Your task to perform on an android device: Open Google Image 0: 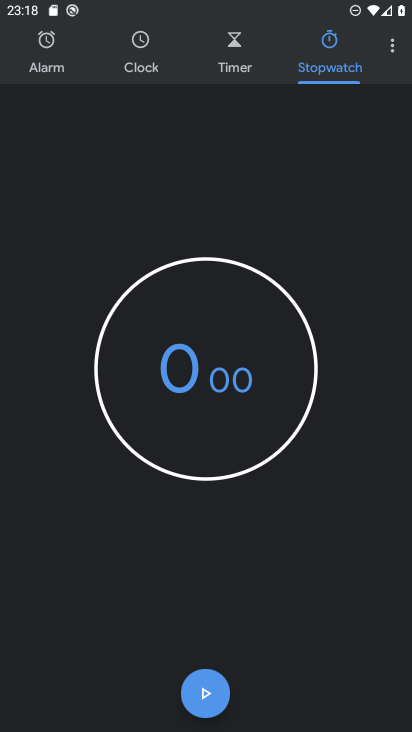
Step 0: press home button
Your task to perform on an android device: Open Google Image 1: 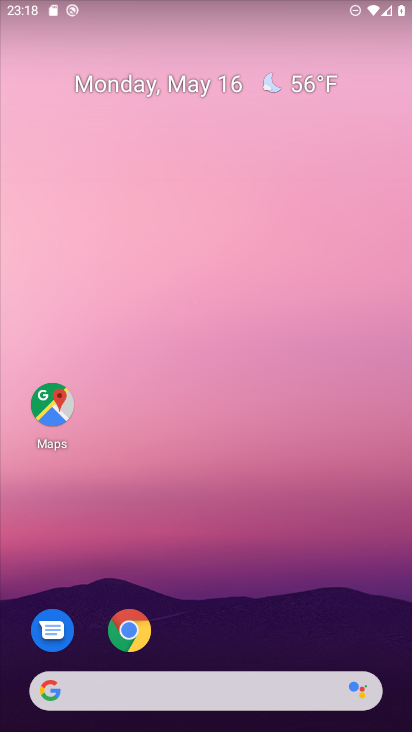
Step 1: click (149, 694)
Your task to perform on an android device: Open Google Image 2: 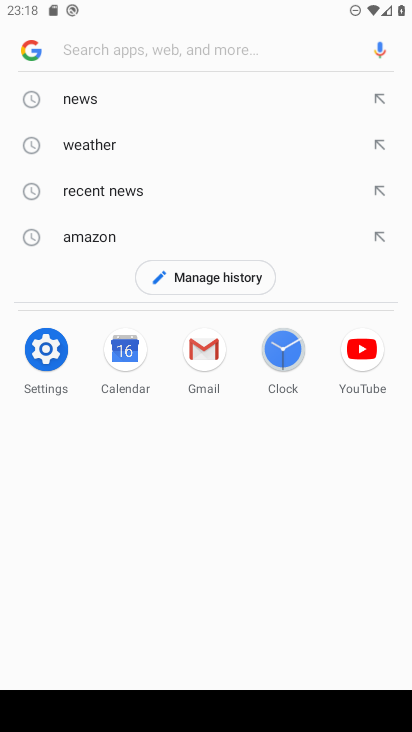
Step 2: click (26, 41)
Your task to perform on an android device: Open Google Image 3: 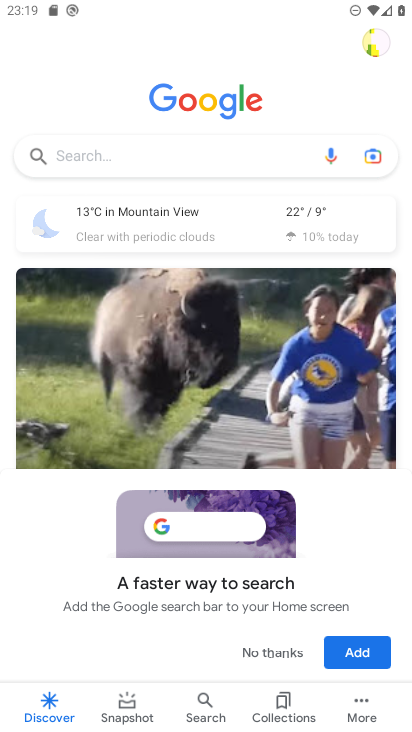
Step 3: task complete